Your task to perform on an android device: Open settings Image 0: 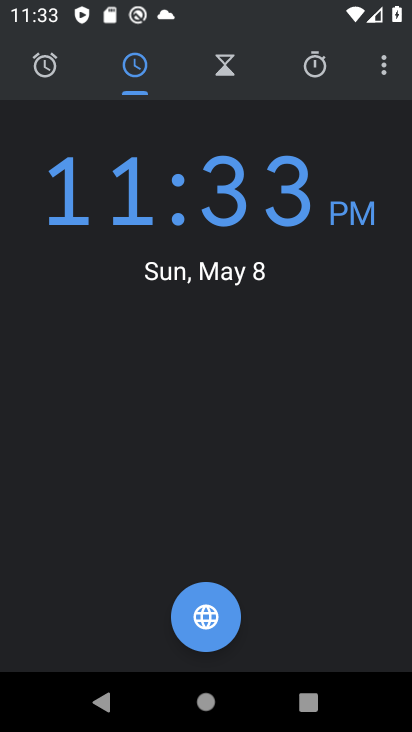
Step 0: press home button
Your task to perform on an android device: Open settings Image 1: 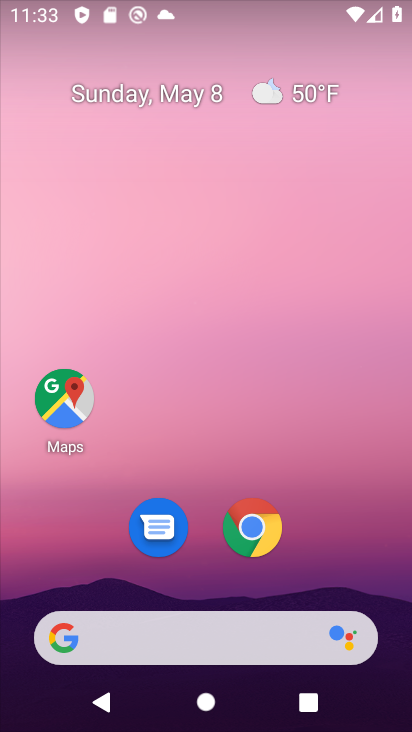
Step 1: drag from (231, 720) to (234, 211)
Your task to perform on an android device: Open settings Image 2: 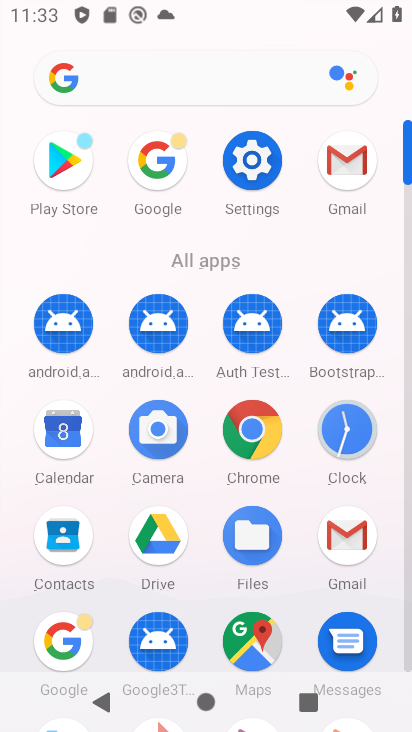
Step 2: click (247, 154)
Your task to perform on an android device: Open settings Image 3: 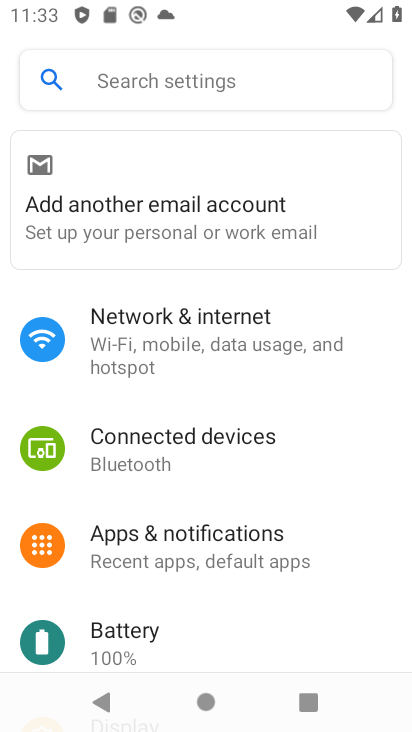
Step 3: task complete